Your task to perform on an android device: Check out the new nike air max 2020. Image 0: 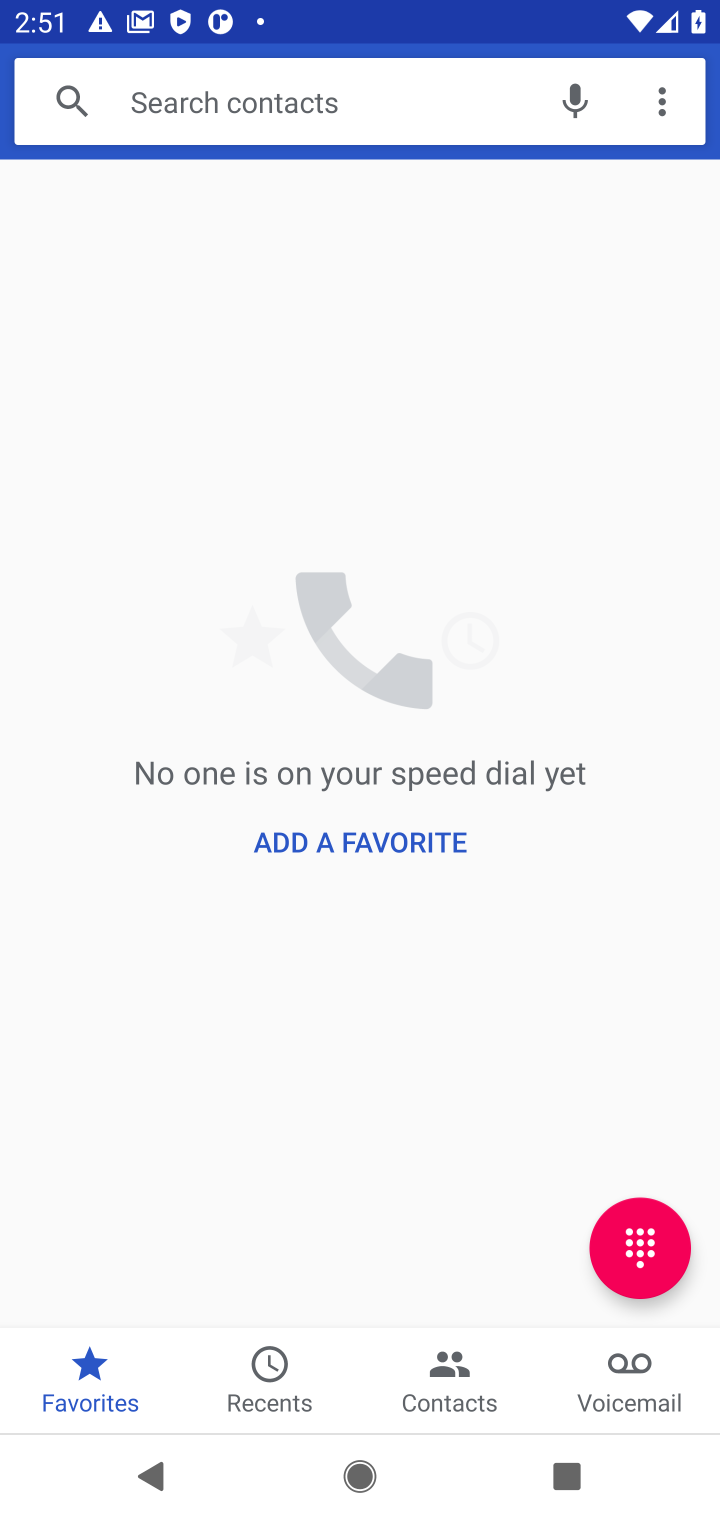
Step 0: press home button
Your task to perform on an android device: Check out the new nike air max 2020. Image 1: 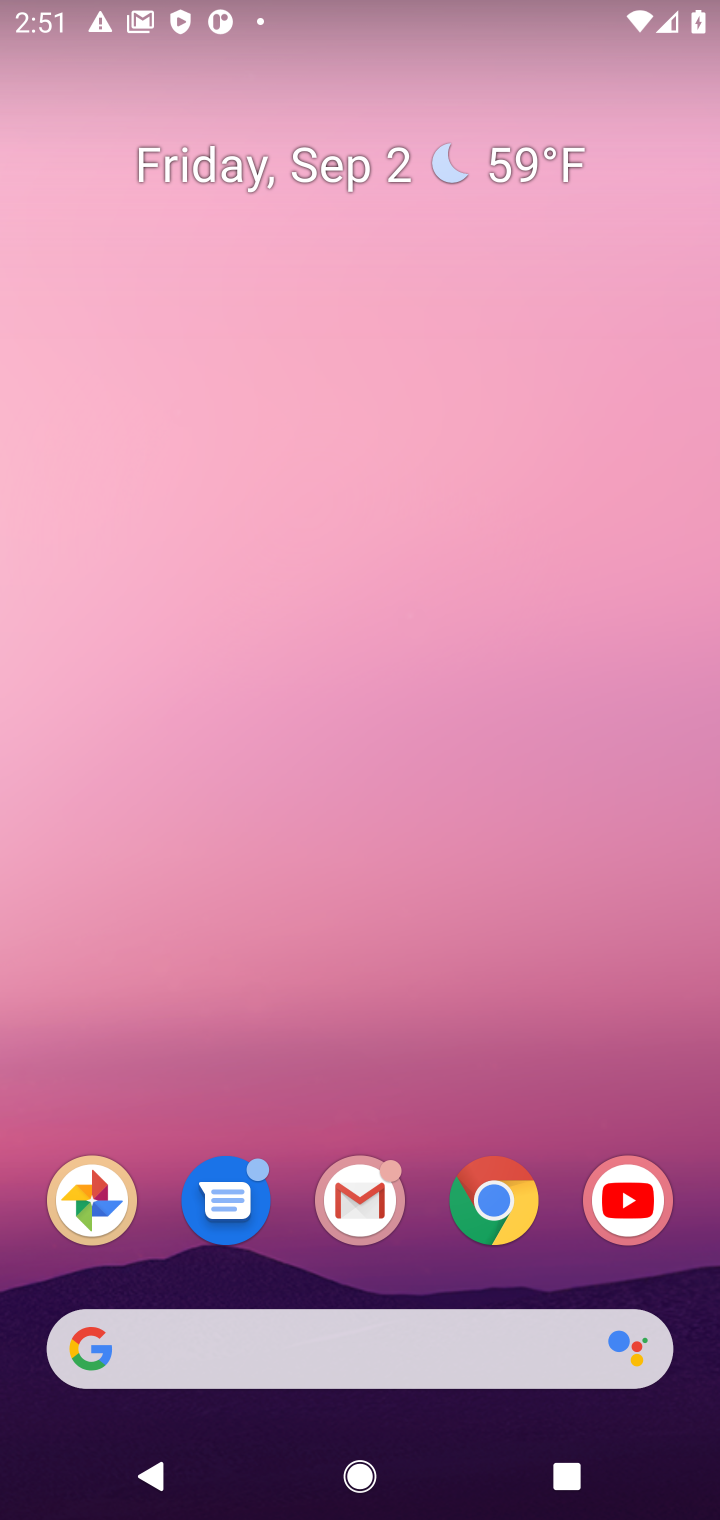
Step 1: click (490, 1205)
Your task to perform on an android device: Check out the new nike air max 2020. Image 2: 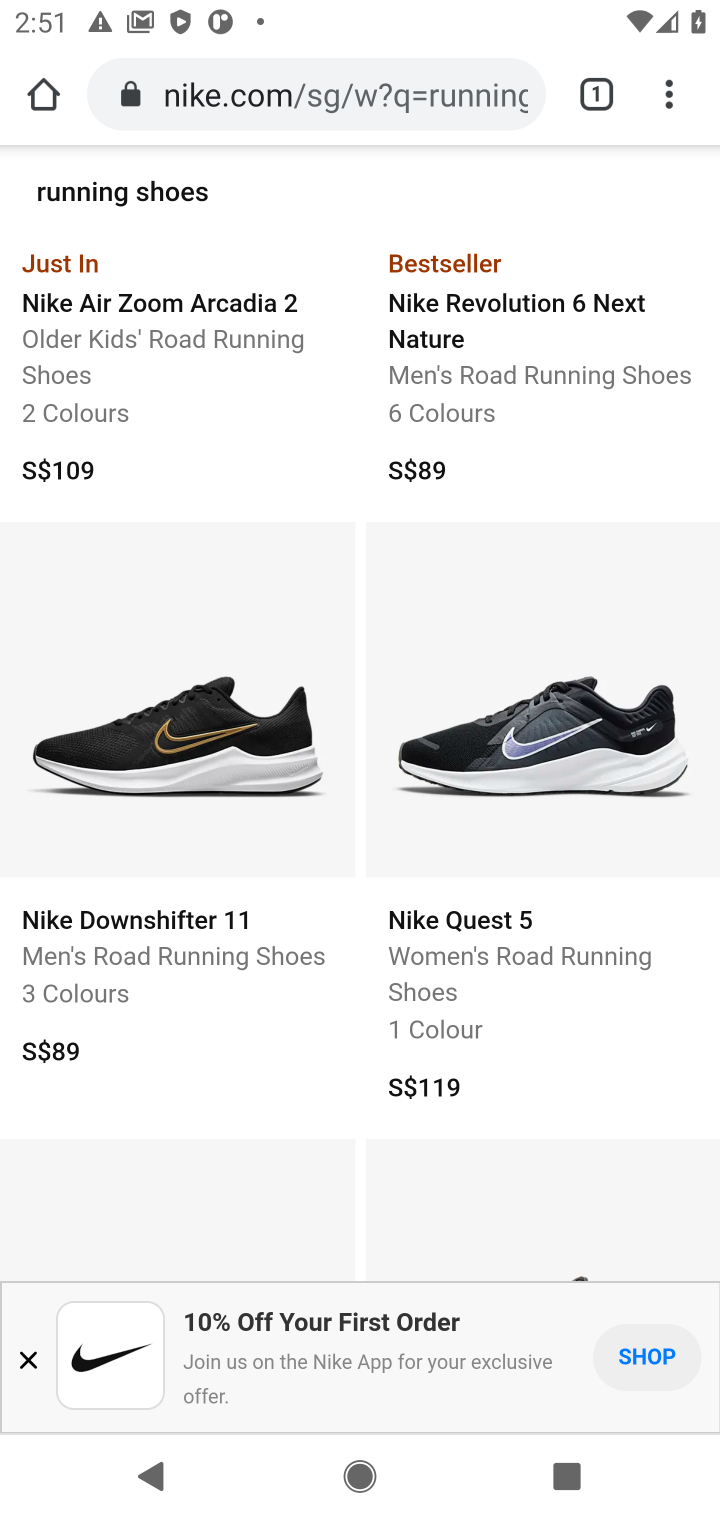
Step 2: click (369, 103)
Your task to perform on an android device: Check out the new nike air max 2020. Image 3: 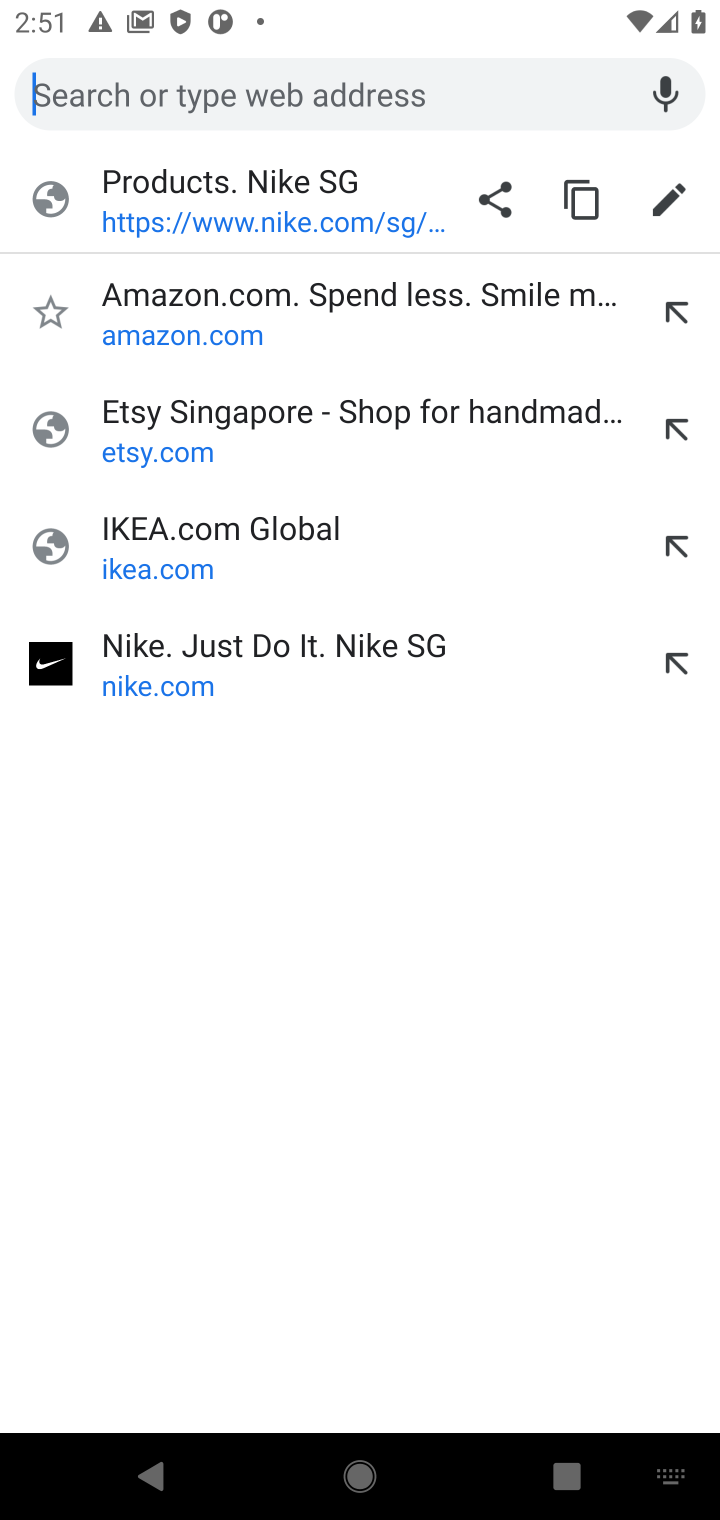
Step 3: type " new nike air max 2020"
Your task to perform on an android device: Check out the new nike air max 2020. Image 4: 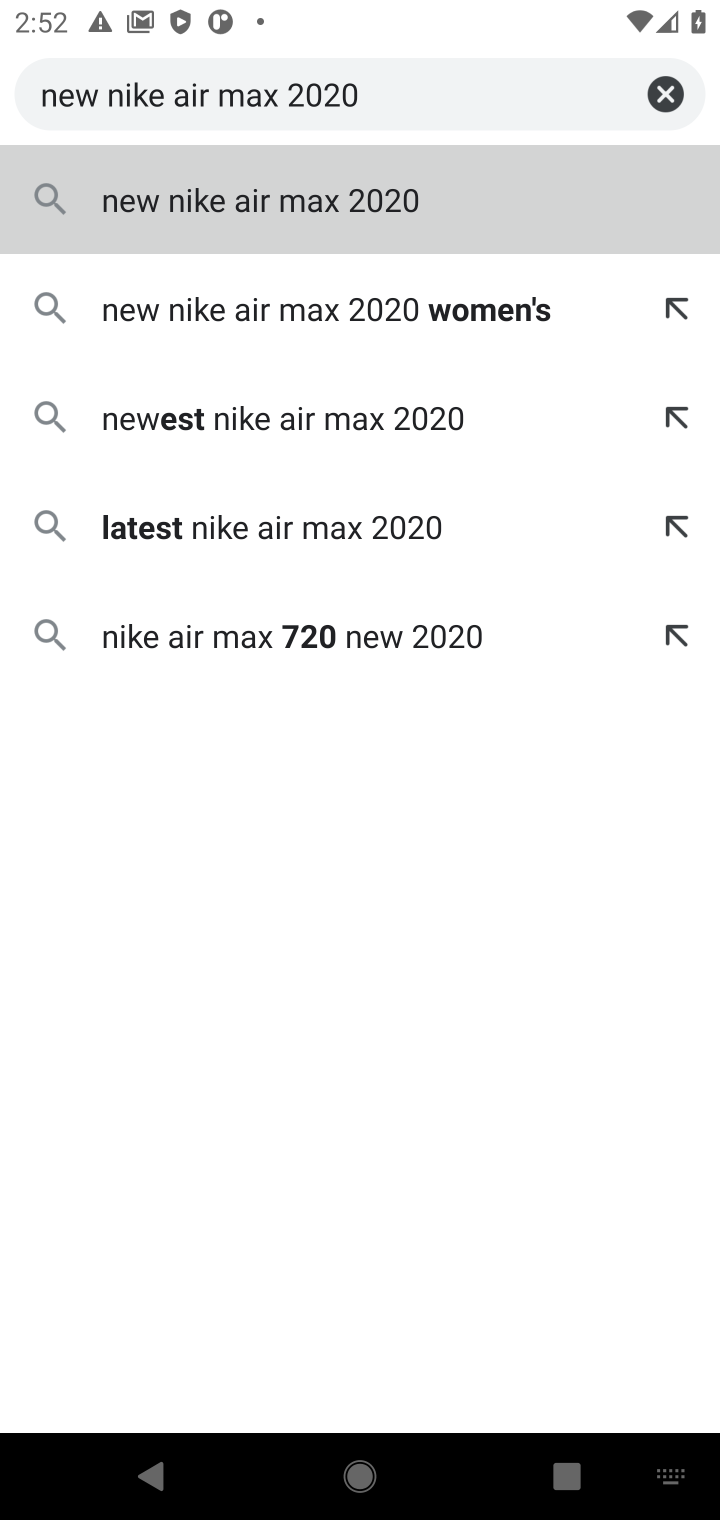
Step 4: press enter
Your task to perform on an android device: Check out the new nike air max 2020. Image 5: 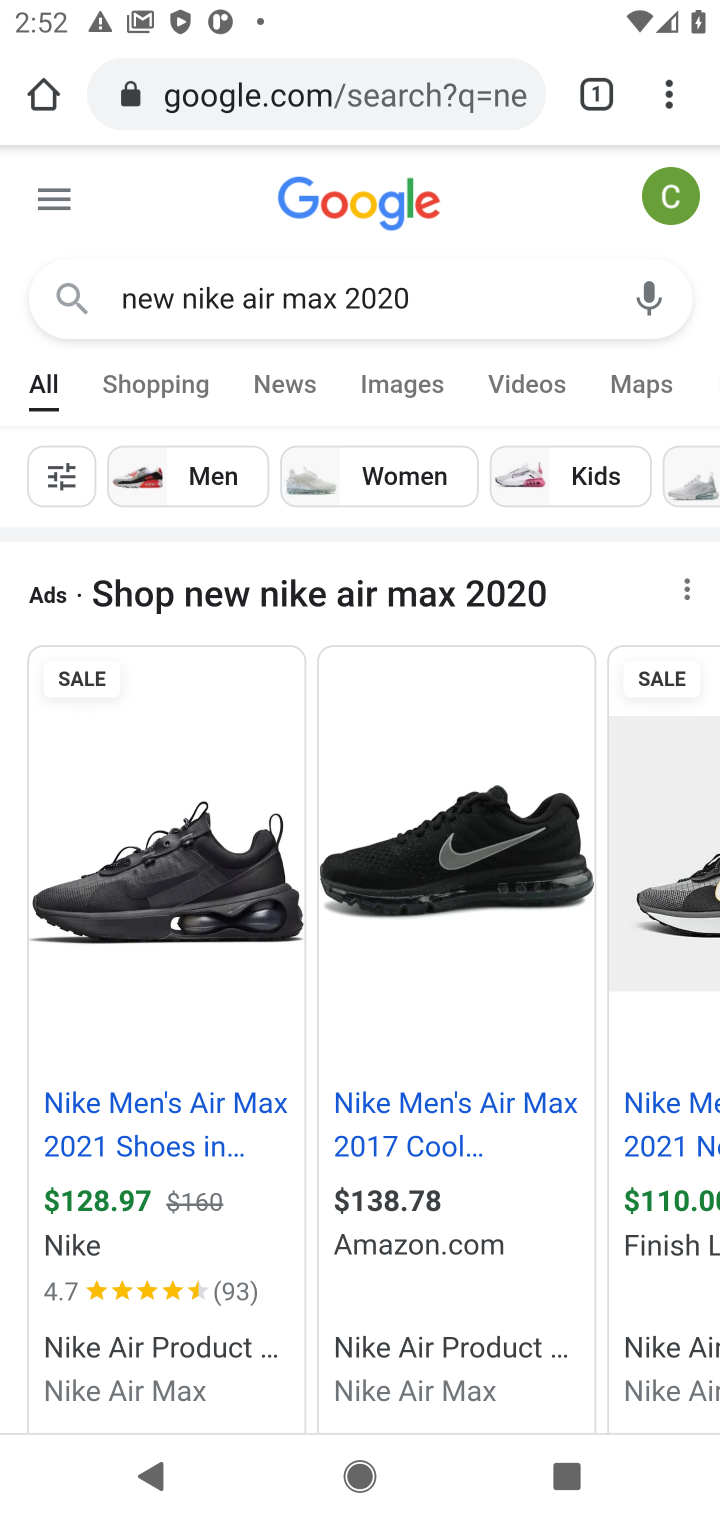
Step 5: task complete